Your task to perform on an android device: open app "Duolingo: language lessons" (install if not already installed) Image 0: 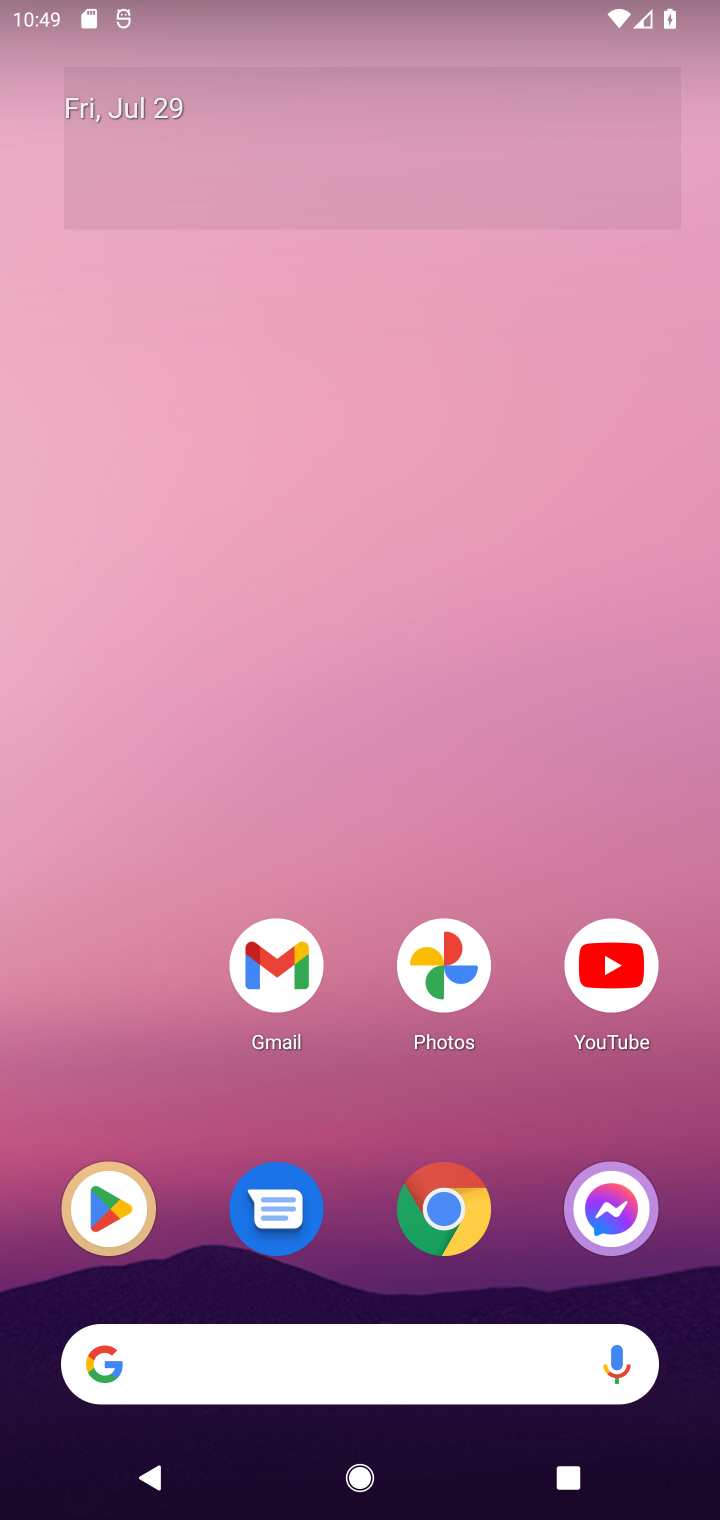
Step 0: drag from (527, 1037) to (541, 104)
Your task to perform on an android device: open app "Duolingo: language lessons" (install if not already installed) Image 1: 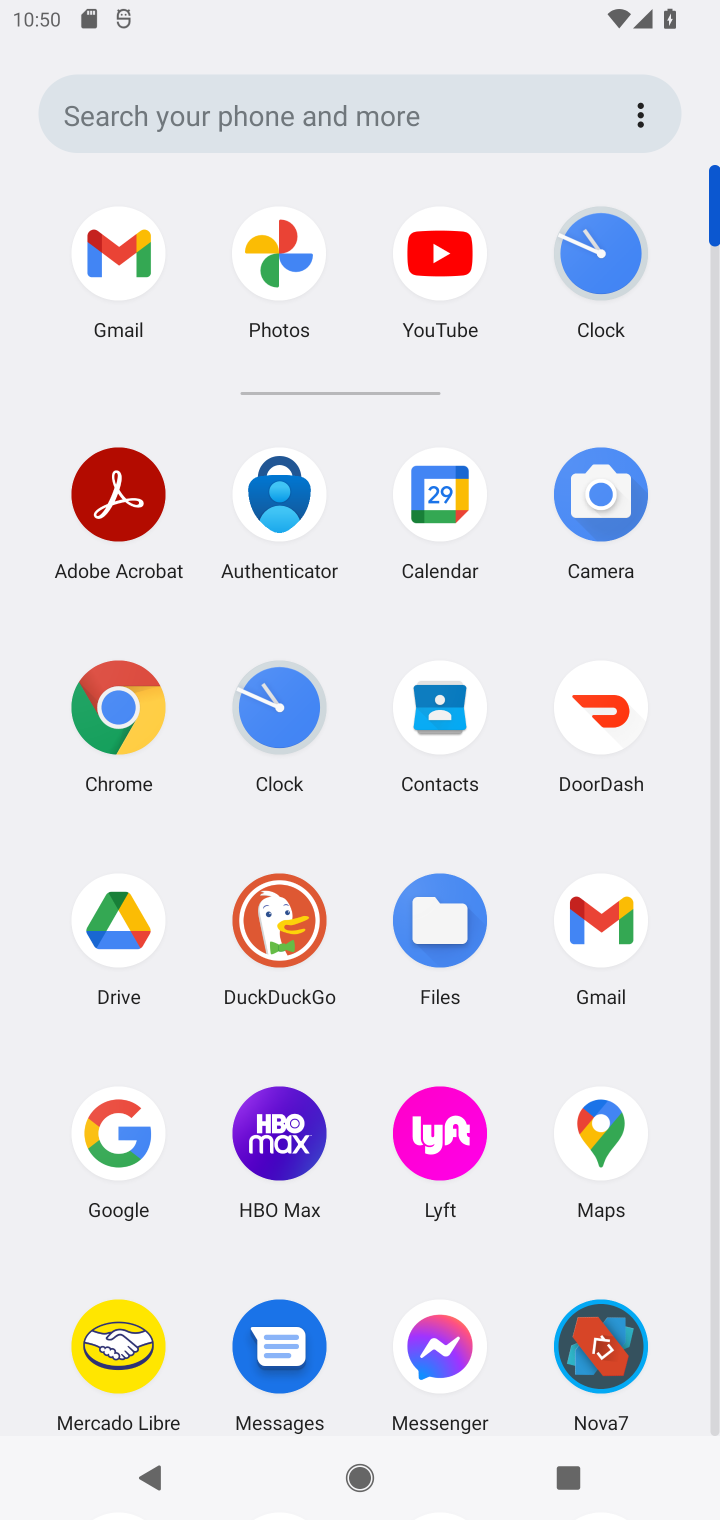
Step 1: drag from (509, 1237) to (478, 570)
Your task to perform on an android device: open app "Duolingo: language lessons" (install if not already installed) Image 2: 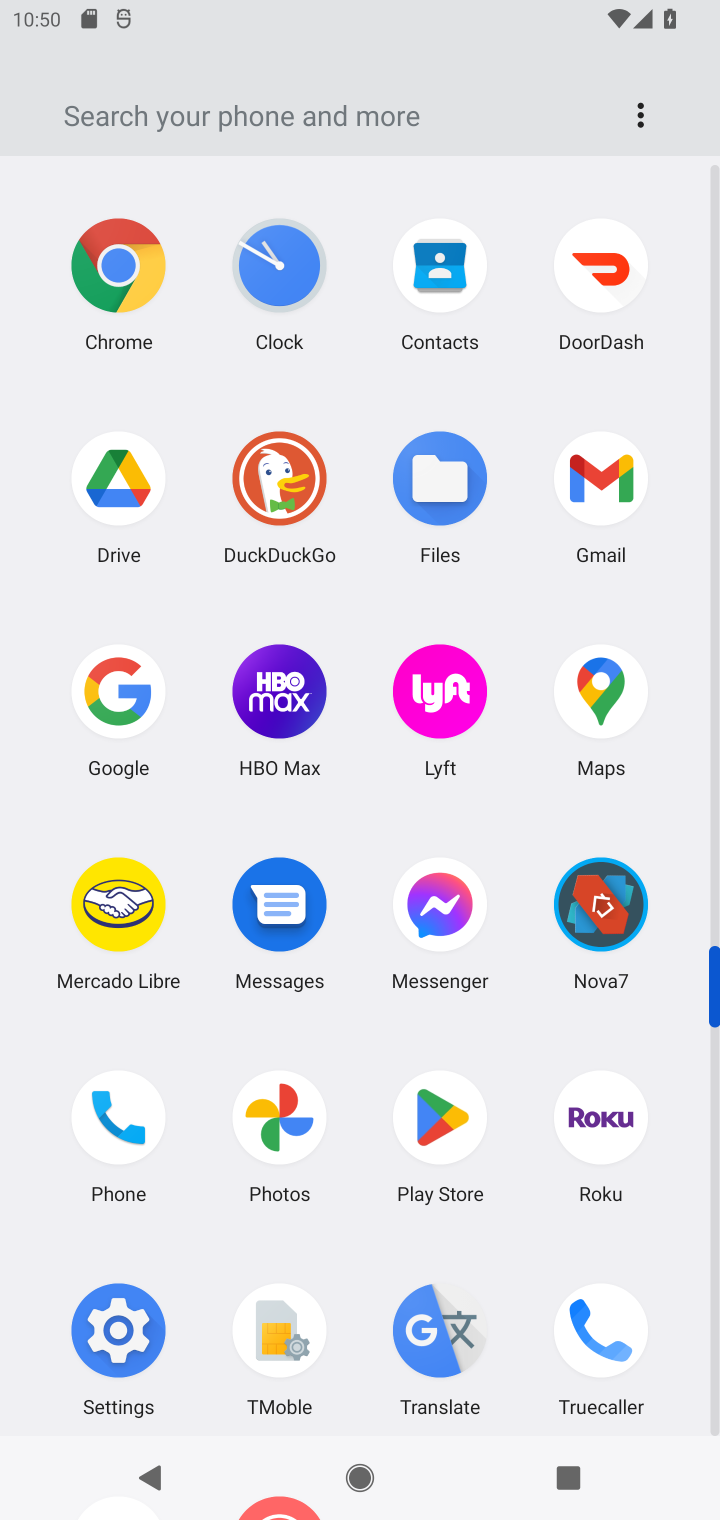
Step 2: click (444, 1102)
Your task to perform on an android device: open app "Duolingo: language lessons" (install if not already installed) Image 3: 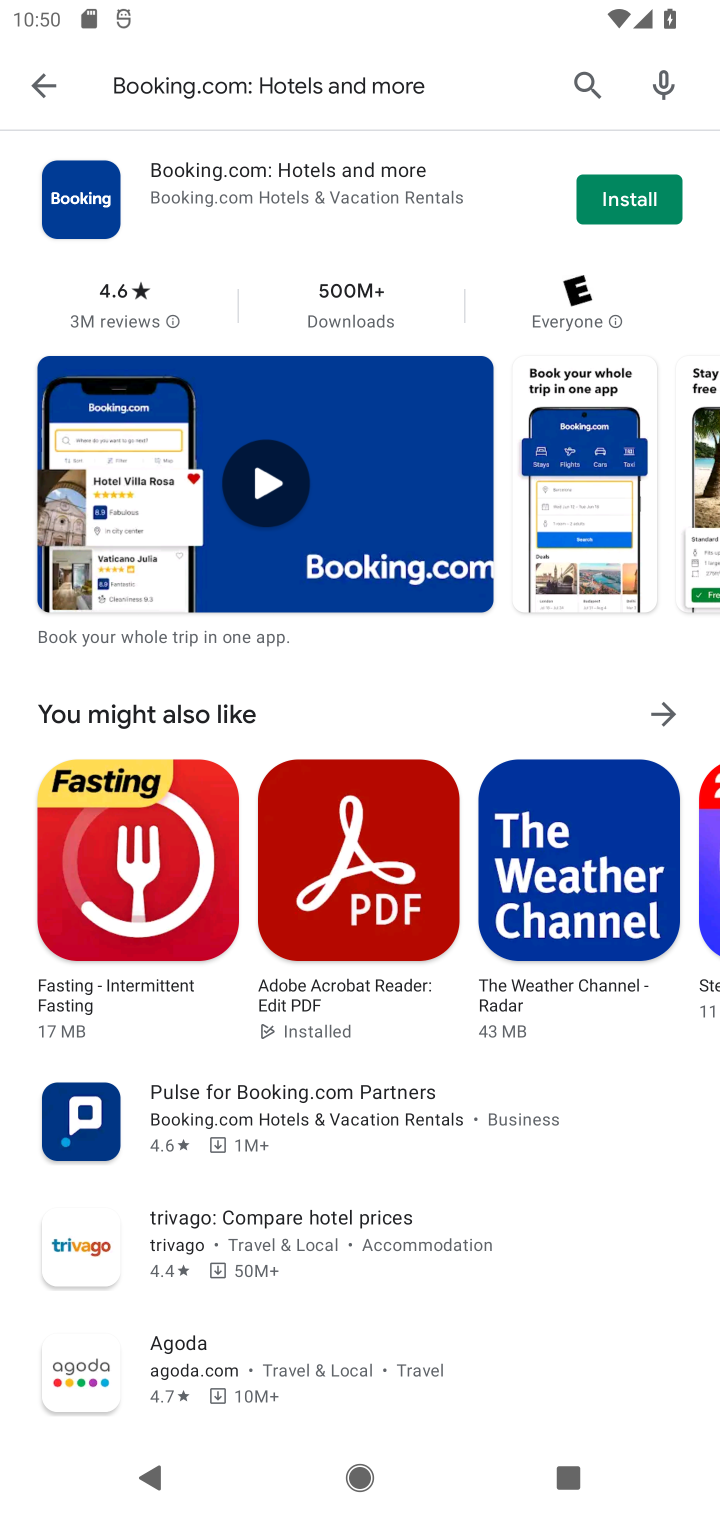
Step 3: click (461, 81)
Your task to perform on an android device: open app "Duolingo: language lessons" (install if not already installed) Image 4: 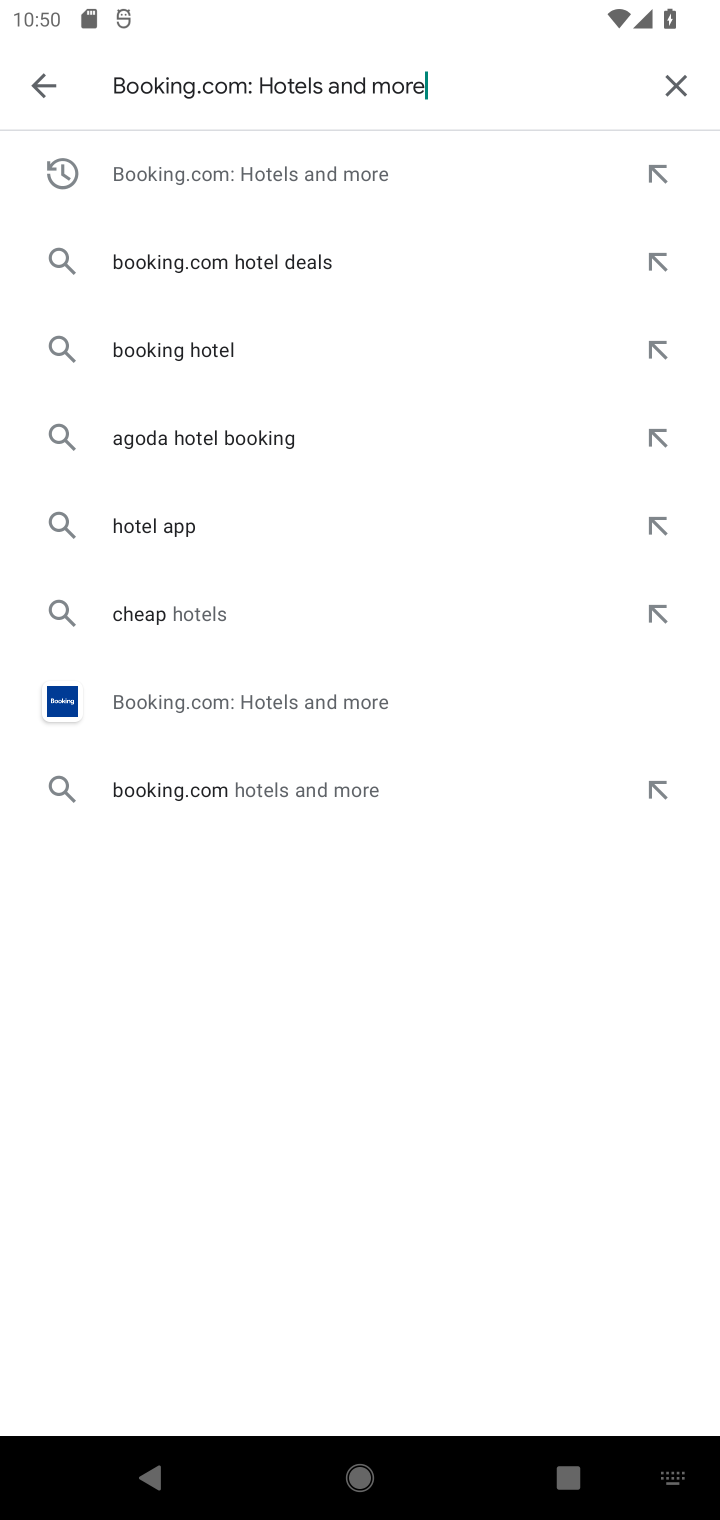
Step 4: click (686, 84)
Your task to perform on an android device: open app "Duolingo: language lessons" (install if not already installed) Image 5: 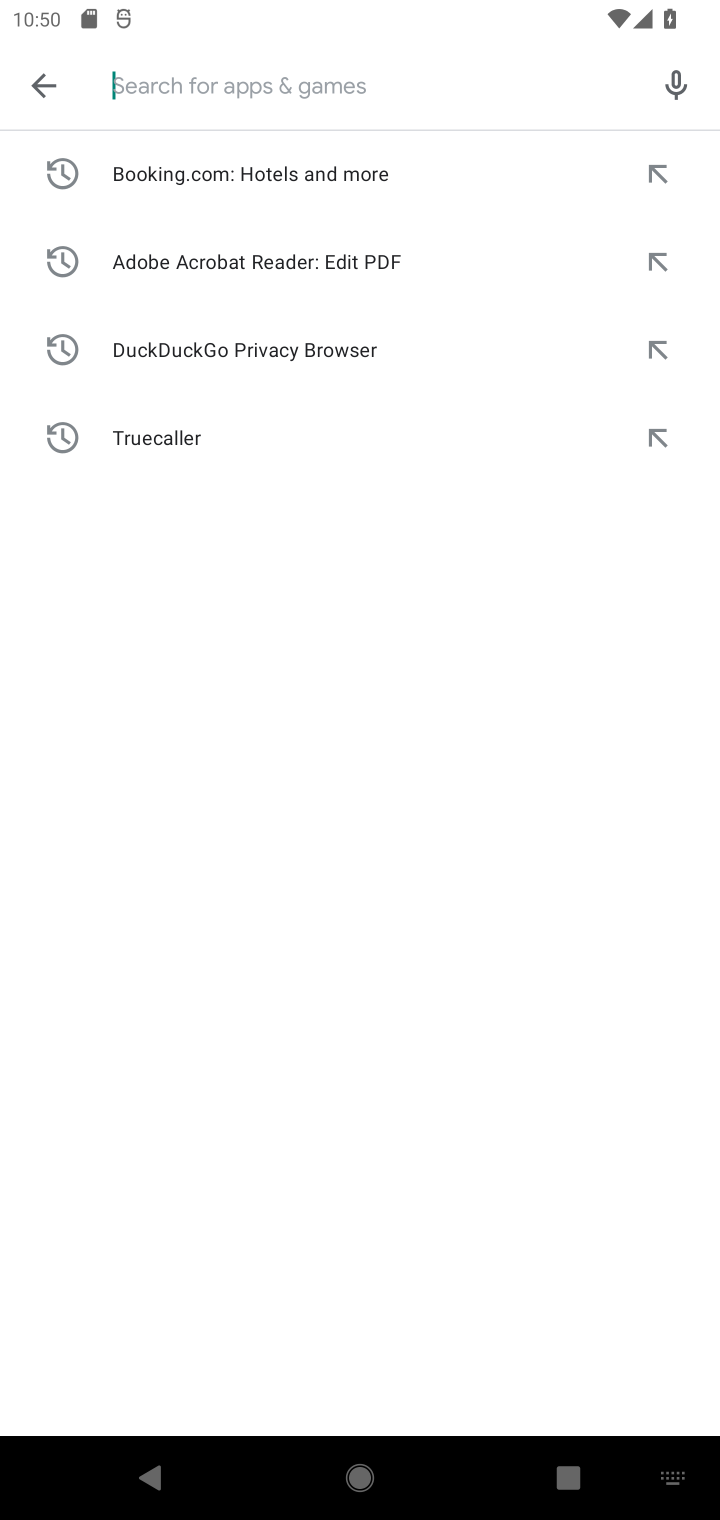
Step 5: type "Duolingo: language lessons"
Your task to perform on an android device: open app "Duolingo: language lessons" (install if not already installed) Image 6: 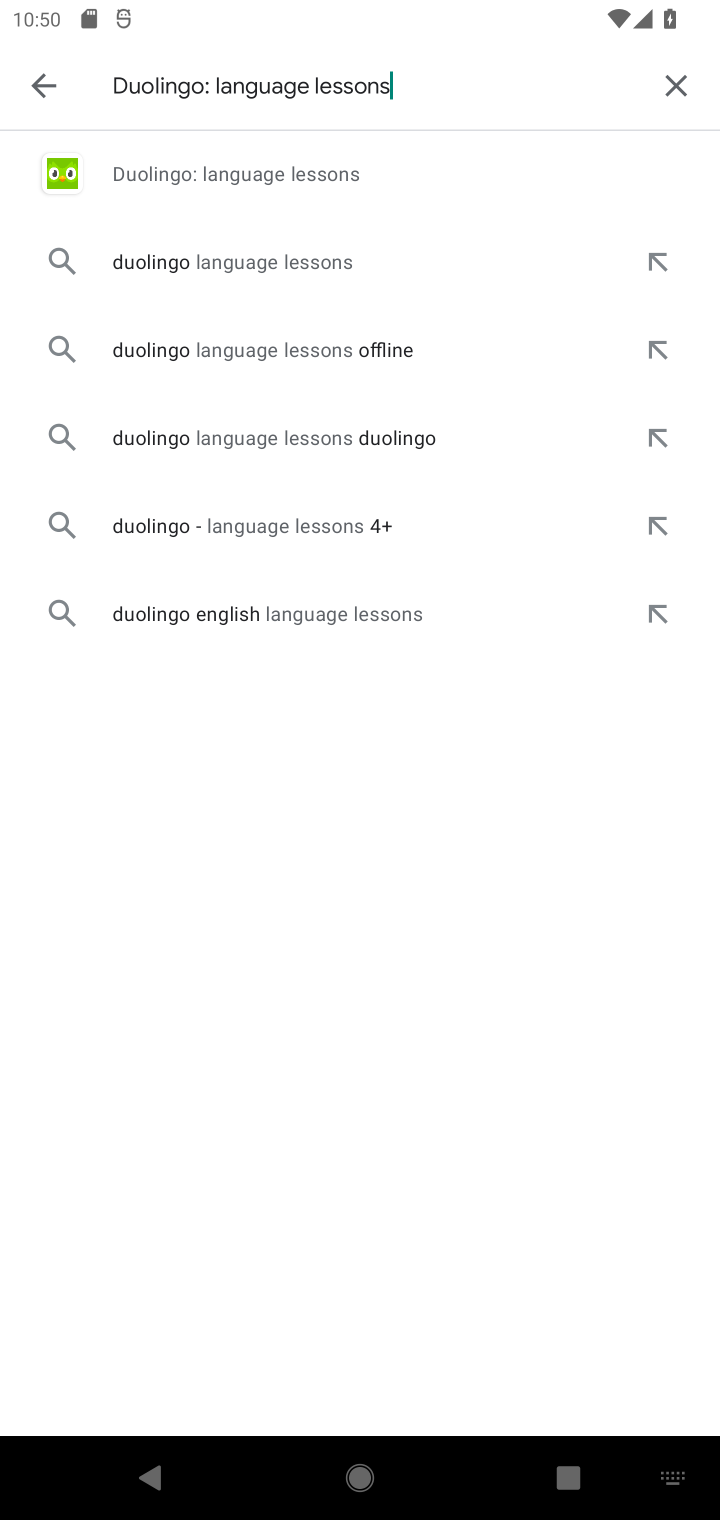
Step 6: press enter
Your task to perform on an android device: open app "Duolingo: language lessons" (install if not already installed) Image 7: 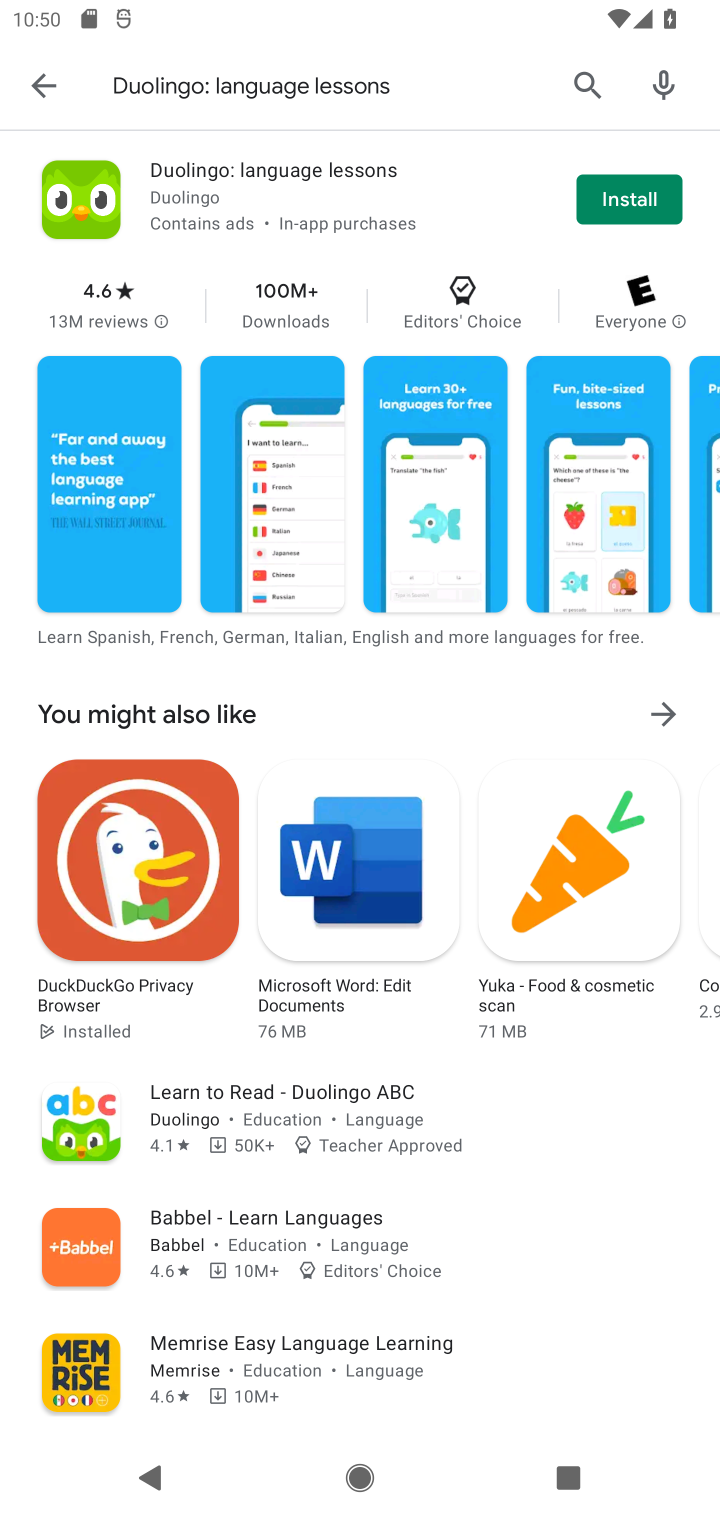
Step 7: click (644, 185)
Your task to perform on an android device: open app "Duolingo: language lessons" (install if not already installed) Image 8: 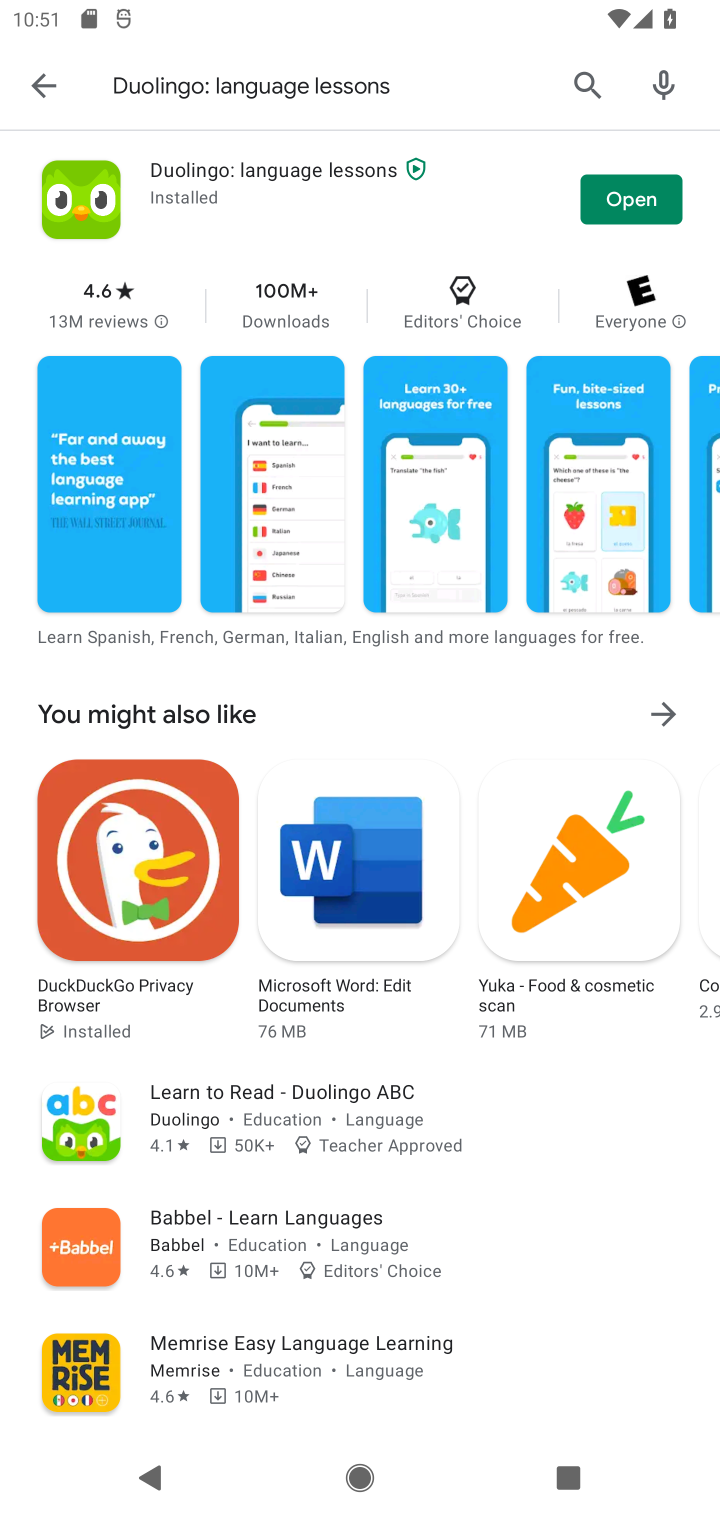
Step 8: click (657, 196)
Your task to perform on an android device: open app "Duolingo: language lessons" (install if not already installed) Image 9: 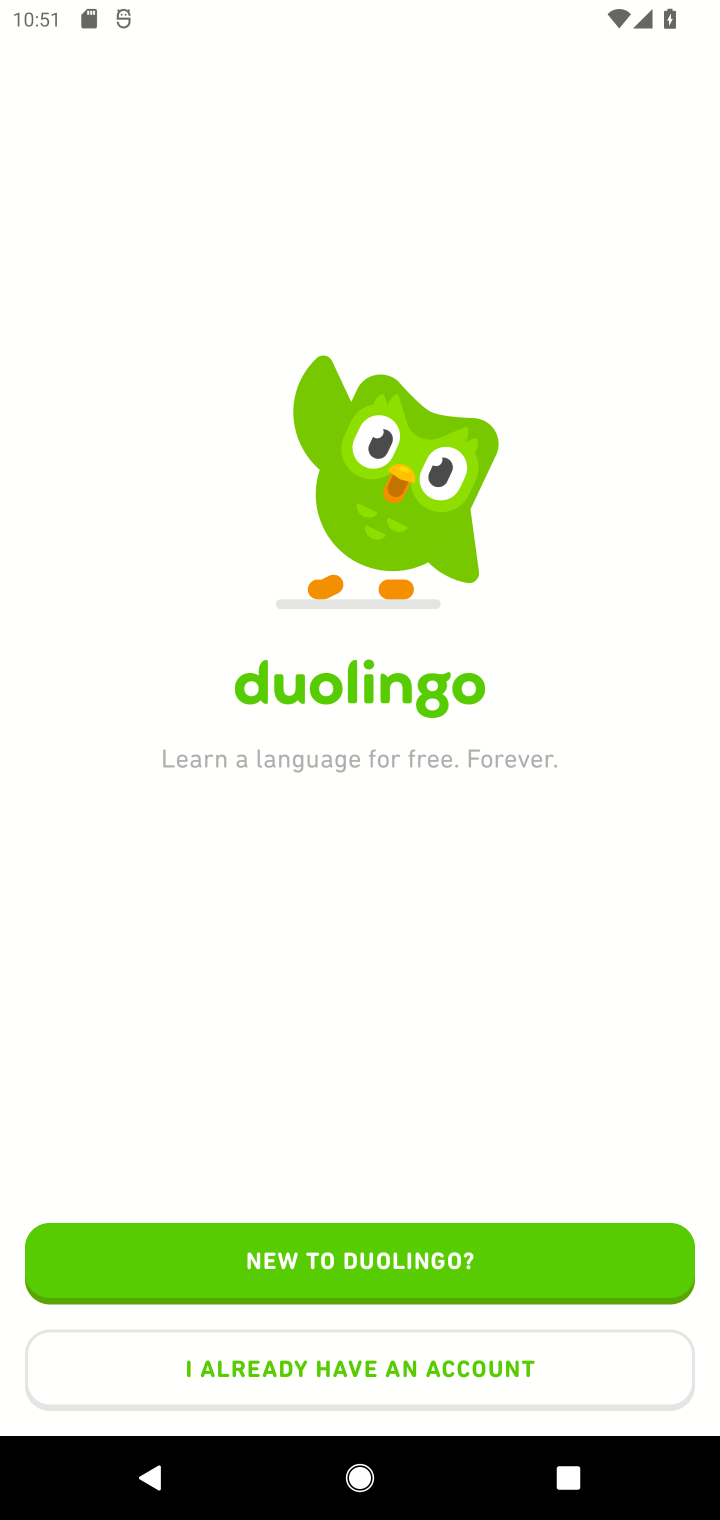
Step 9: task complete